Your task to perform on an android device: Open the stopwatch Image 0: 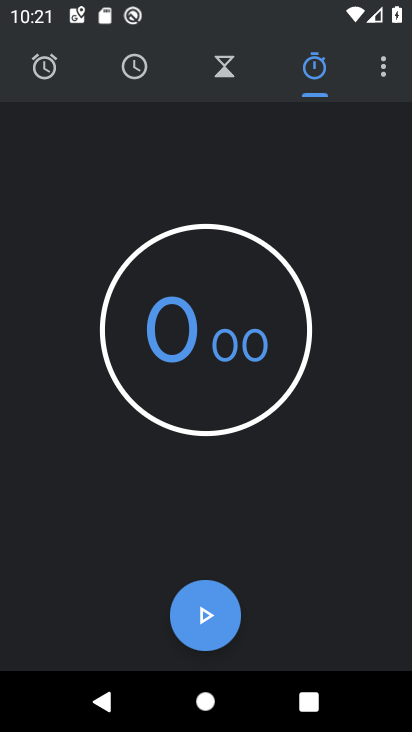
Step 0: click (251, 320)
Your task to perform on an android device: Open the stopwatch Image 1: 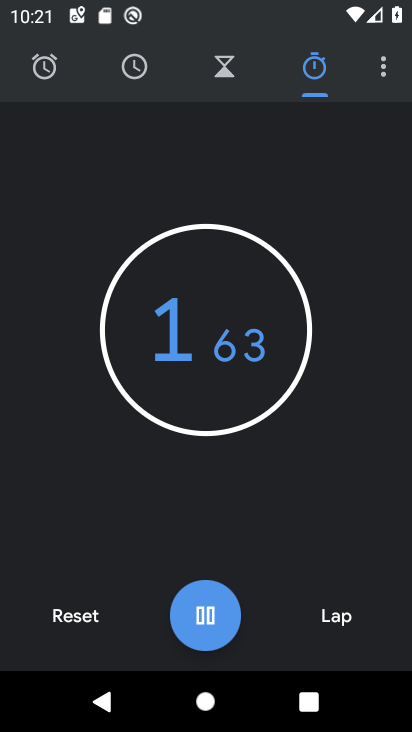
Step 1: task complete